Your task to perform on an android device: Open network settings Image 0: 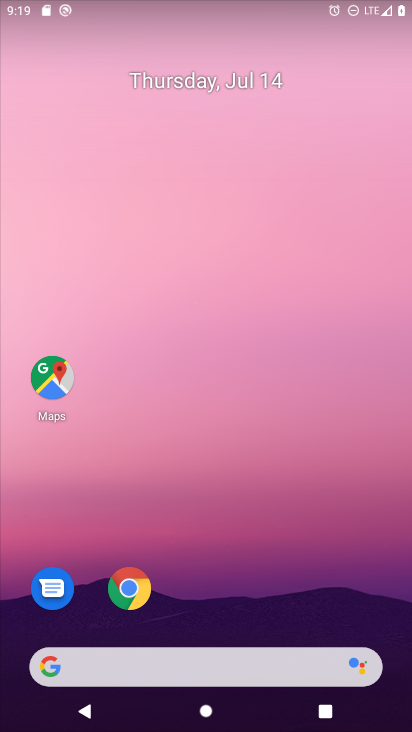
Step 0: drag from (283, 499) to (394, 113)
Your task to perform on an android device: Open network settings Image 1: 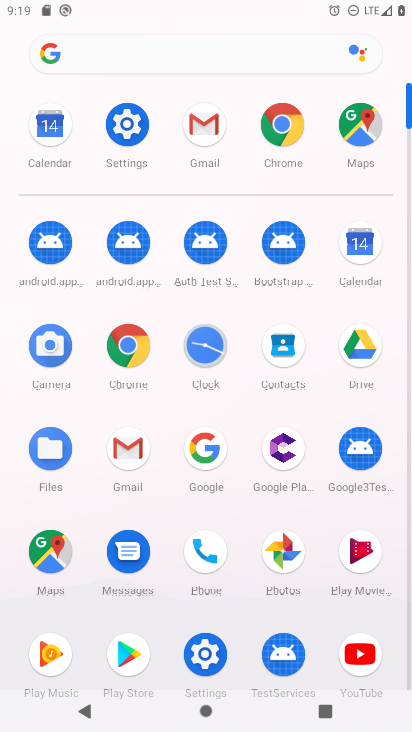
Step 1: click (115, 125)
Your task to perform on an android device: Open network settings Image 2: 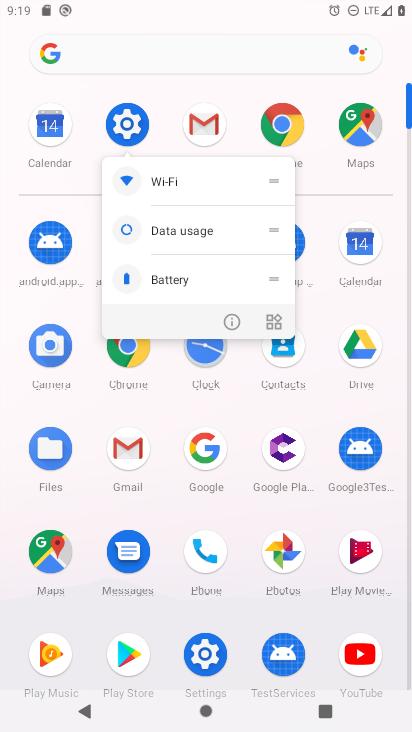
Step 2: click (112, 125)
Your task to perform on an android device: Open network settings Image 3: 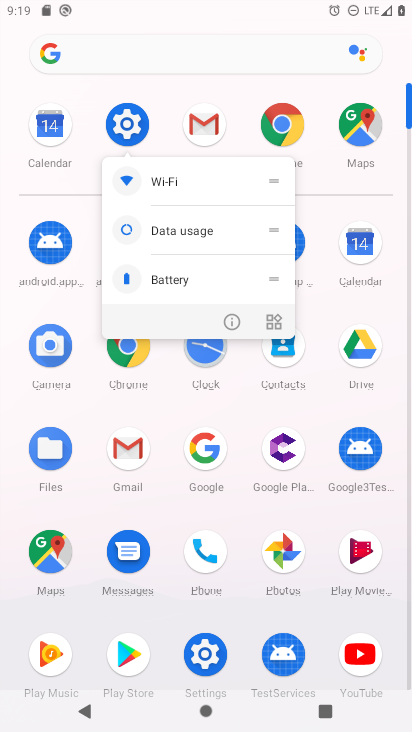
Step 3: click (119, 113)
Your task to perform on an android device: Open network settings Image 4: 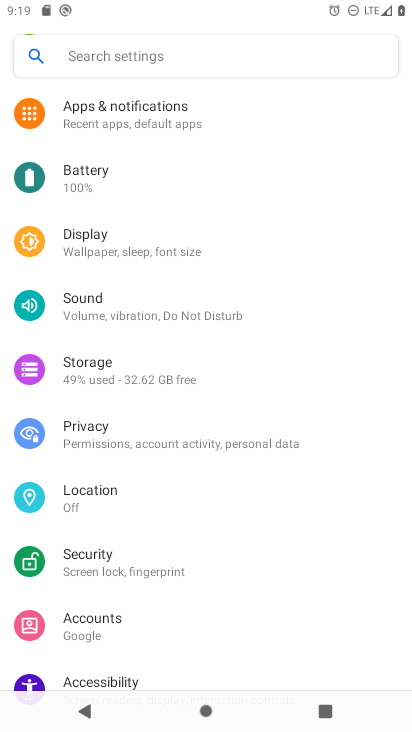
Step 4: drag from (114, 140) to (126, 452)
Your task to perform on an android device: Open network settings Image 5: 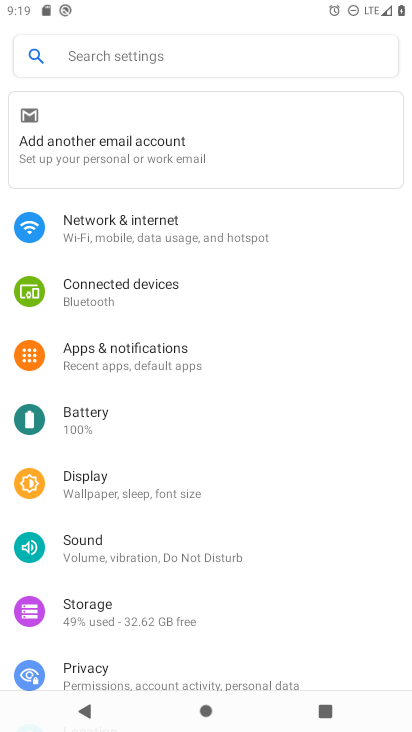
Step 5: click (98, 229)
Your task to perform on an android device: Open network settings Image 6: 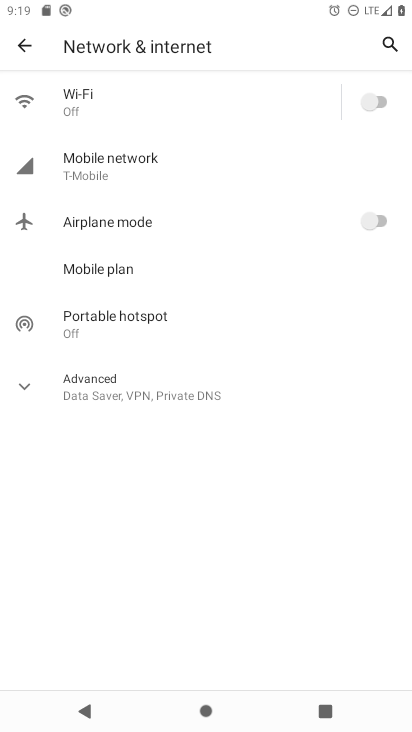
Step 6: click (101, 162)
Your task to perform on an android device: Open network settings Image 7: 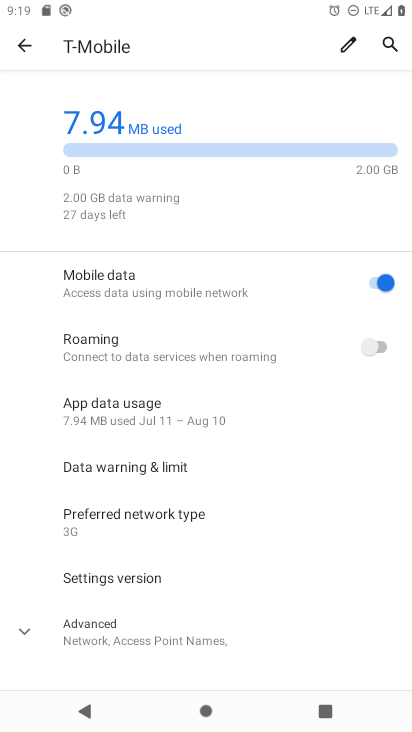
Step 7: task complete